Your task to perform on an android device: Search for sushi restaurants on Maps Image 0: 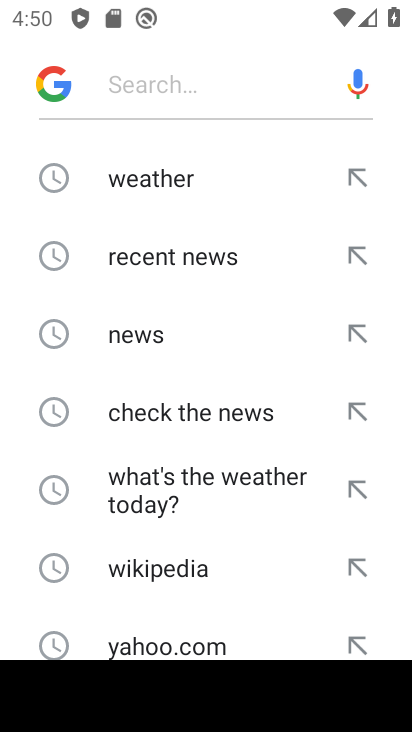
Step 0: press home button
Your task to perform on an android device: Search for sushi restaurants on Maps Image 1: 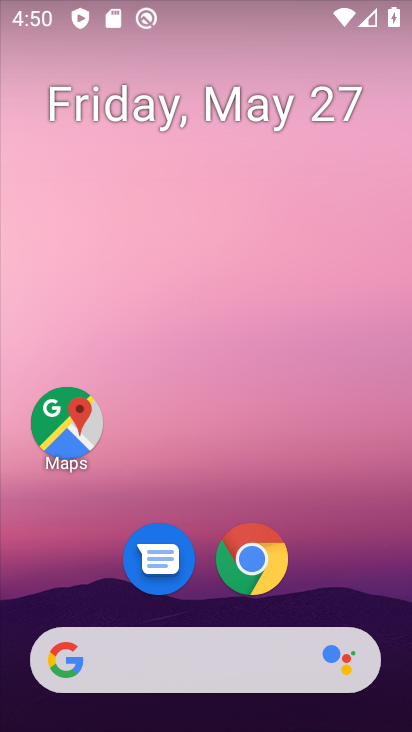
Step 1: click (59, 421)
Your task to perform on an android device: Search for sushi restaurants on Maps Image 2: 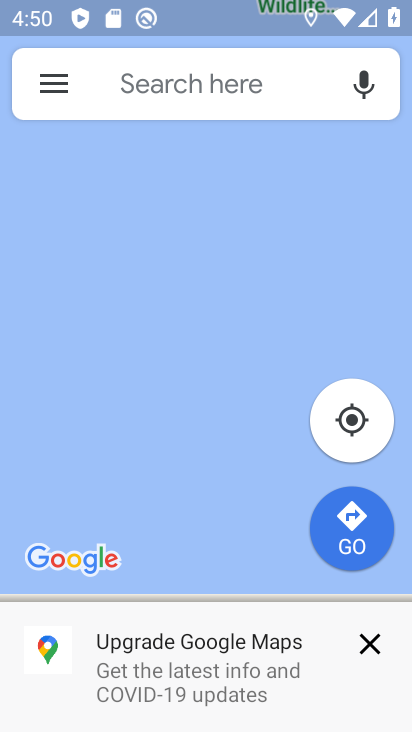
Step 2: click (156, 81)
Your task to perform on an android device: Search for sushi restaurants on Maps Image 3: 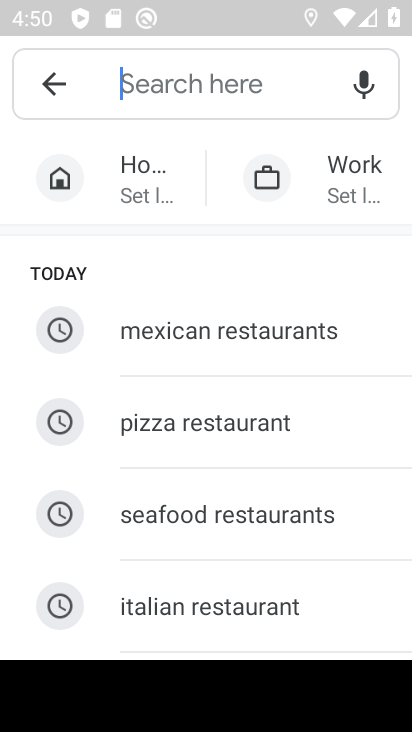
Step 3: type "sushi restaurants"
Your task to perform on an android device: Search for sushi restaurants on Maps Image 4: 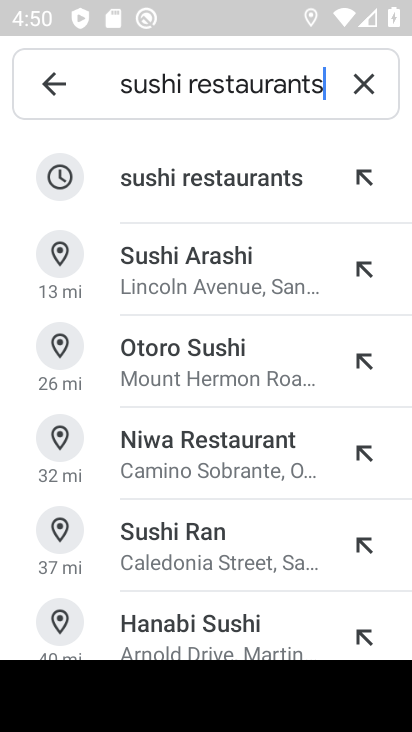
Step 4: click (211, 182)
Your task to perform on an android device: Search for sushi restaurants on Maps Image 5: 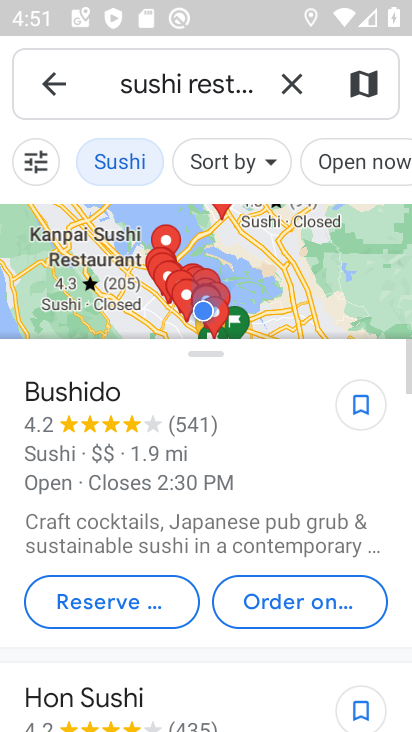
Step 5: task complete